Your task to perform on an android device: Search for Italian restaurants on Maps Image 0: 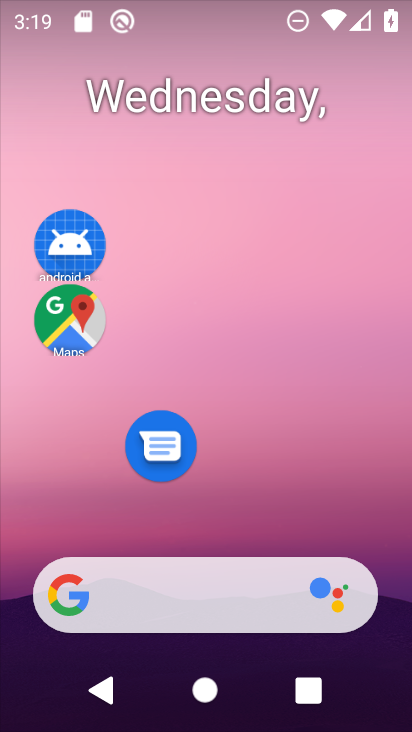
Step 0: click (83, 346)
Your task to perform on an android device: Search for Italian restaurants on Maps Image 1: 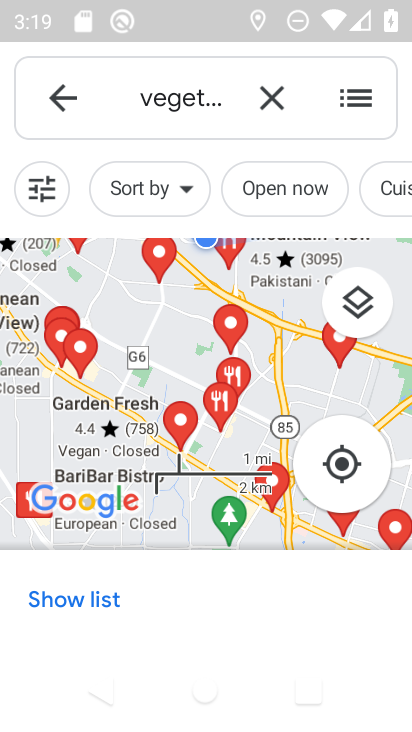
Step 1: click (263, 106)
Your task to perform on an android device: Search for Italian restaurants on Maps Image 2: 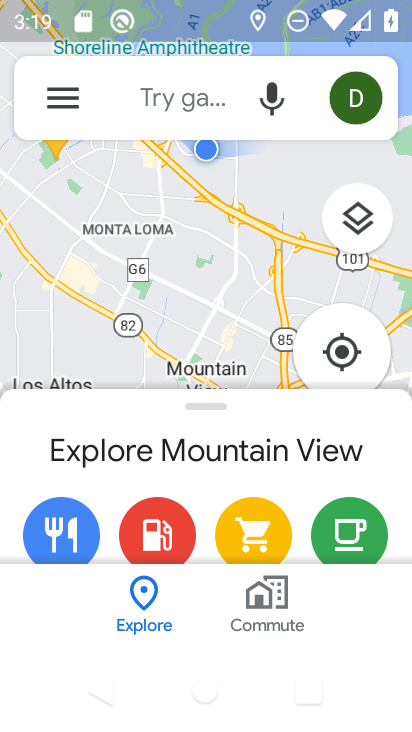
Step 2: click (159, 104)
Your task to perform on an android device: Search for Italian restaurants on Maps Image 3: 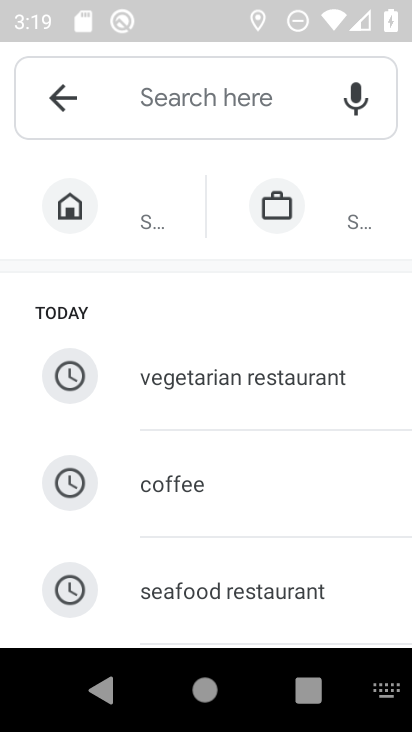
Step 3: drag from (271, 494) to (270, 266)
Your task to perform on an android device: Search for Italian restaurants on Maps Image 4: 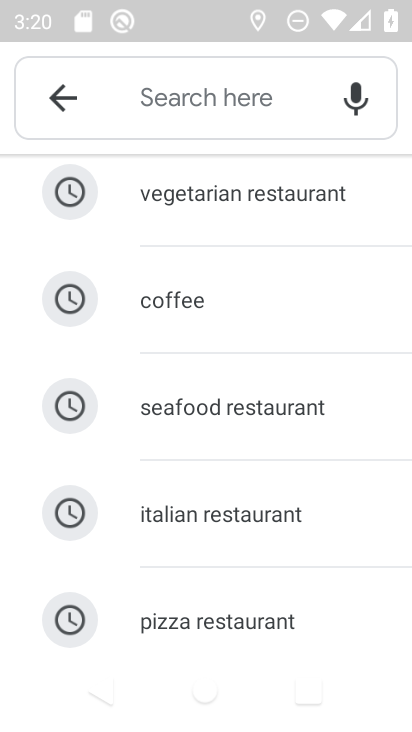
Step 4: click (286, 531)
Your task to perform on an android device: Search for Italian restaurants on Maps Image 5: 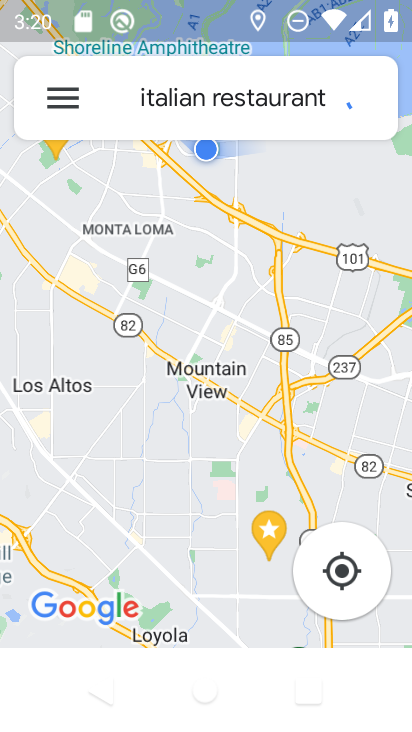
Step 5: task complete